Your task to perform on an android device: Go to display settings Image 0: 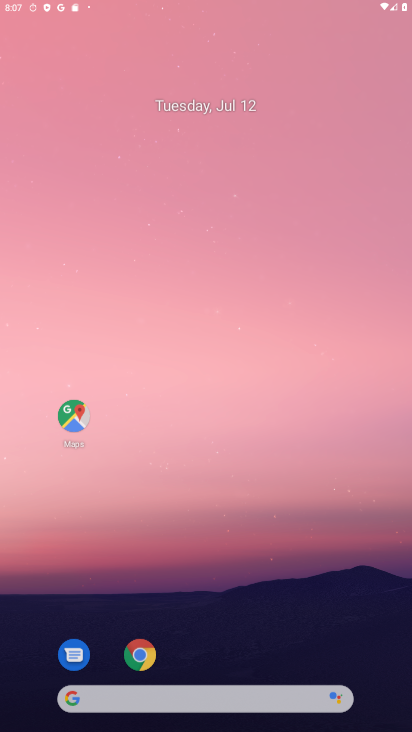
Step 0: drag from (275, 692) to (245, 175)
Your task to perform on an android device: Go to display settings Image 1: 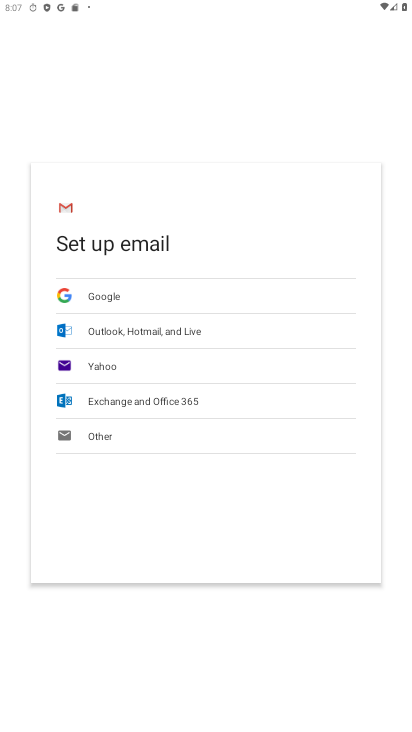
Step 1: press back button
Your task to perform on an android device: Go to display settings Image 2: 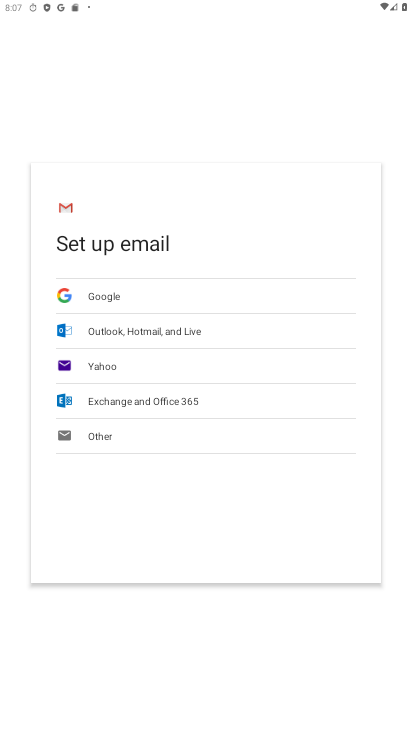
Step 2: press back button
Your task to perform on an android device: Go to display settings Image 3: 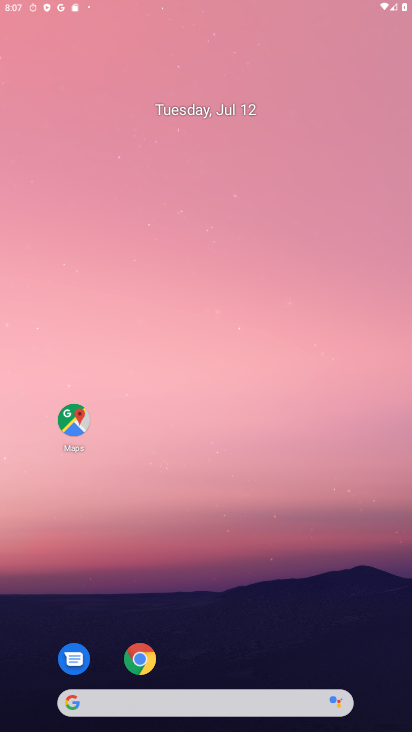
Step 3: press back button
Your task to perform on an android device: Go to display settings Image 4: 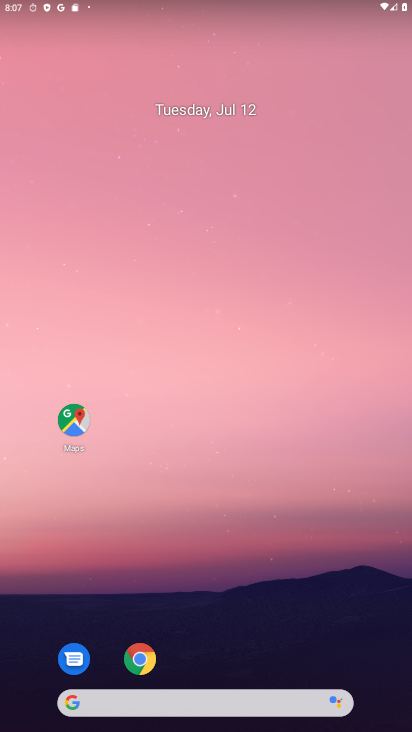
Step 4: drag from (281, 590) to (202, 233)
Your task to perform on an android device: Go to display settings Image 5: 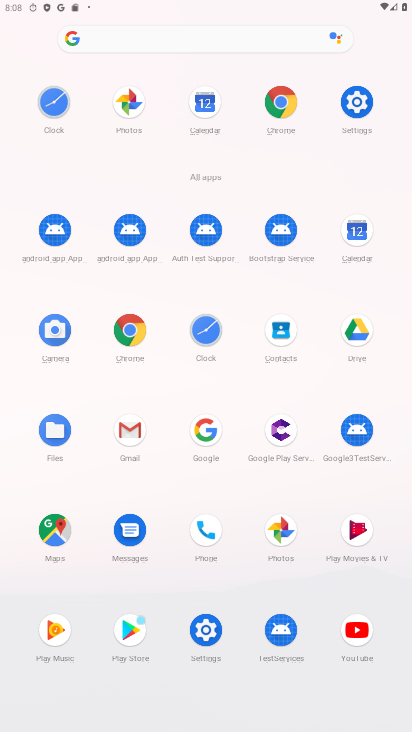
Step 5: click (206, 642)
Your task to perform on an android device: Go to display settings Image 6: 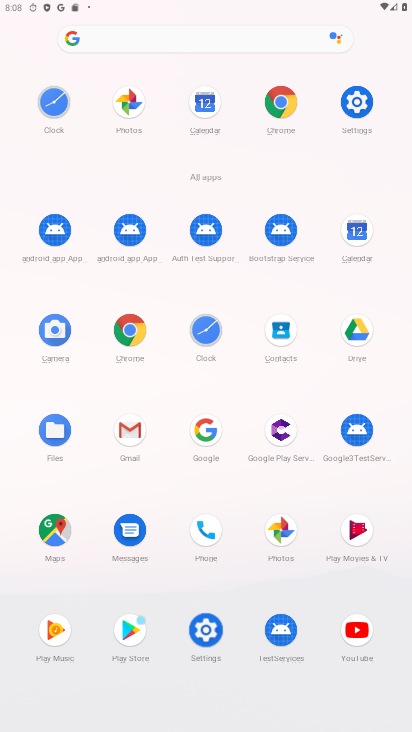
Step 6: click (205, 641)
Your task to perform on an android device: Go to display settings Image 7: 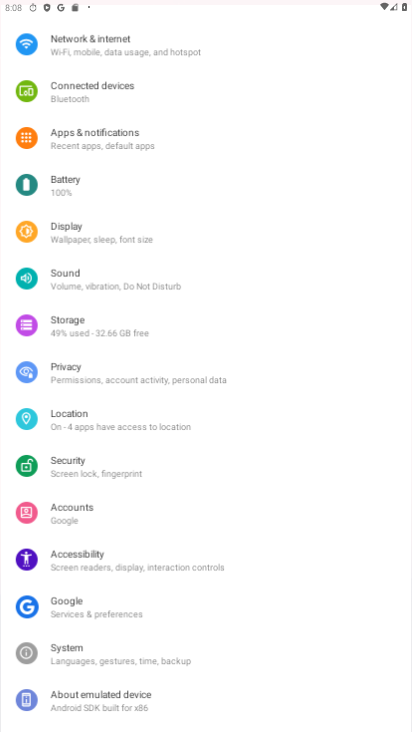
Step 7: click (200, 635)
Your task to perform on an android device: Go to display settings Image 8: 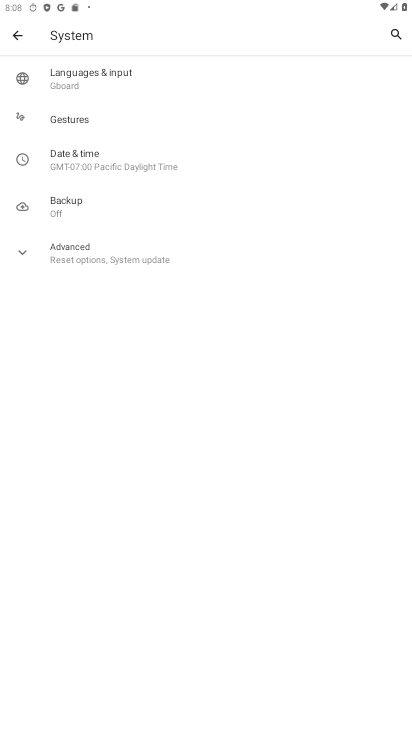
Step 8: click (15, 30)
Your task to perform on an android device: Go to display settings Image 9: 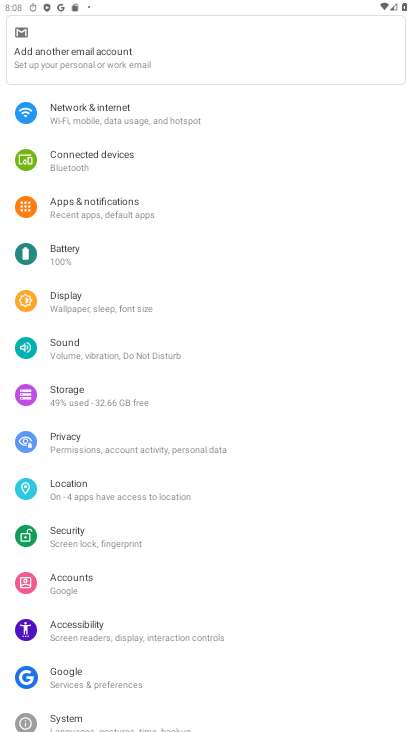
Step 9: click (74, 301)
Your task to perform on an android device: Go to display settings Image 10: 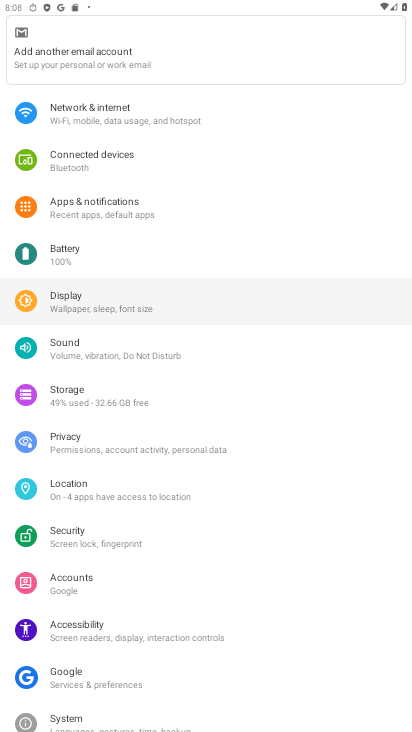
Step 10: click (75, 299)
Your task to perform on an android device: Go to display settings Image 11: 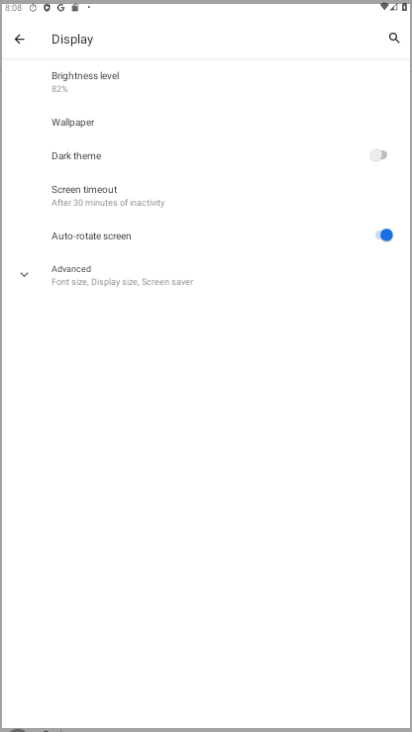
Step 11: click (77, 299)
Your task to perform on an android device: Go to display settings Image 12: 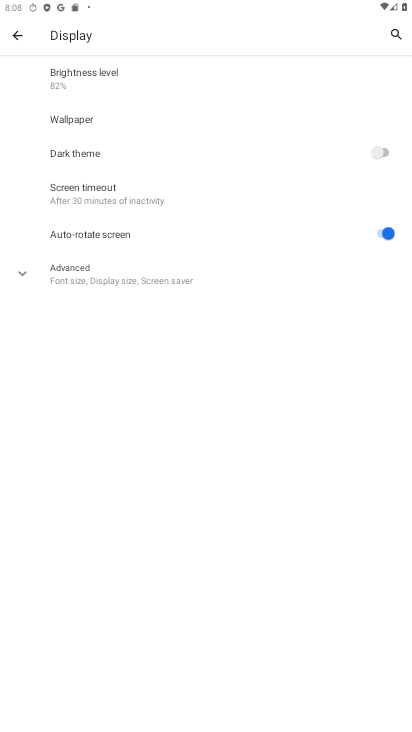
Step 12: task complete